Your task to perform on an android device: stop showing notifications on the lock screen Image 0: 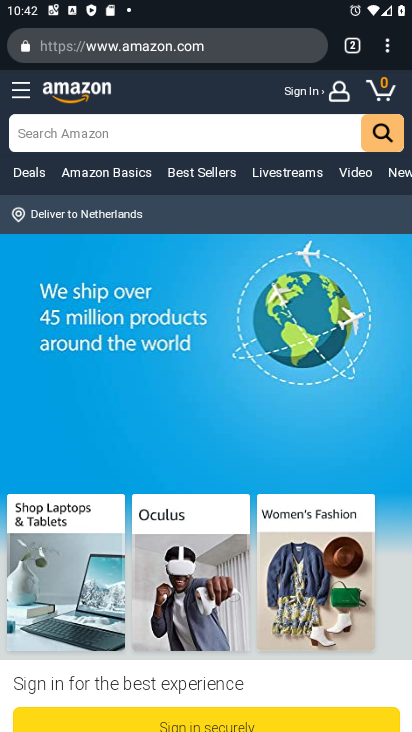
Step 0: press home button
Your task to perform on an android device: stop showing notifications on the lock screen Image 1: 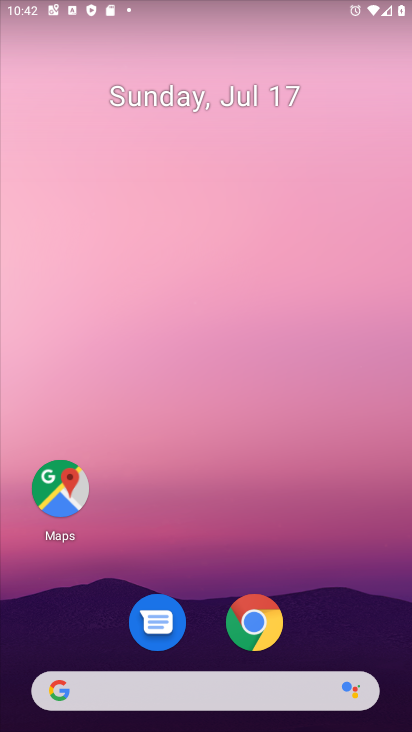
Step 1: drag from (169, 723) to (383, 13)
Your task to perform on an android device: stop showing notifications on the lock screen Image 2: 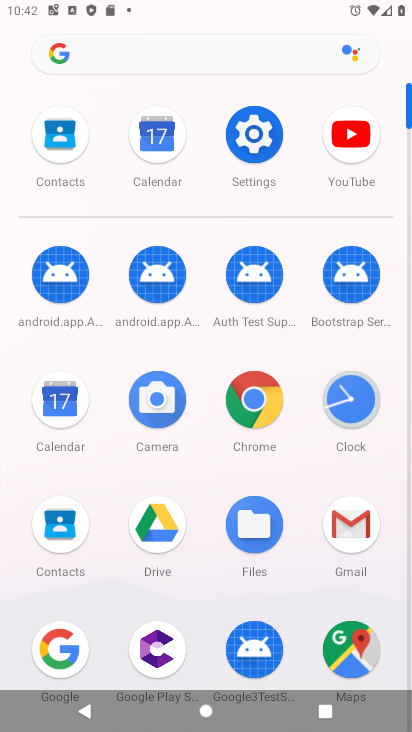
Step 2: click (250, 136)
Your task to perform on an android device: stop showing notifications on the lock screen Image 3: 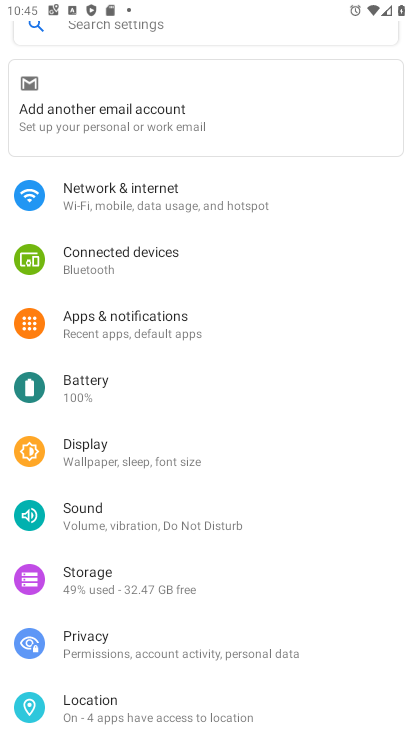
Step 3: click (169, 323)
Your task to perform on an android device: stop showing notifications on the lock screen Image 4: 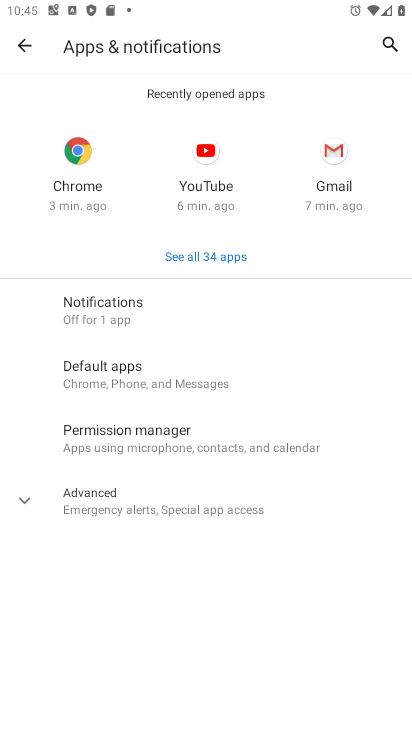
Step 4: click (179, 316)
Your task to perform on an android device: stop showing notifications on the lock screen Image 5: 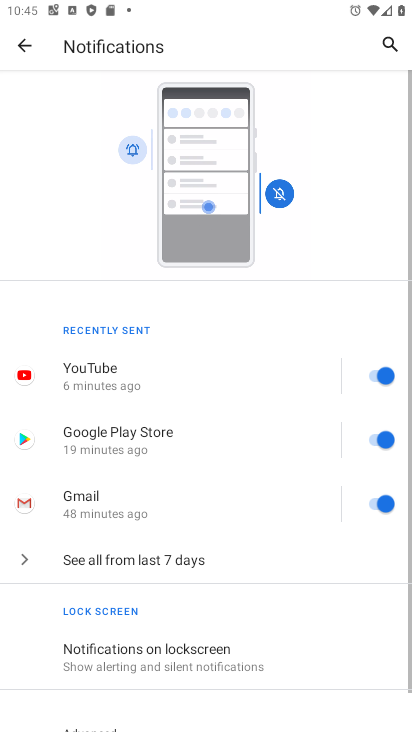
Step 5: drag from (227, 691) to (224, 239)
Your task to perform on an android device: stop showing notifications on the lock screen Image 6: 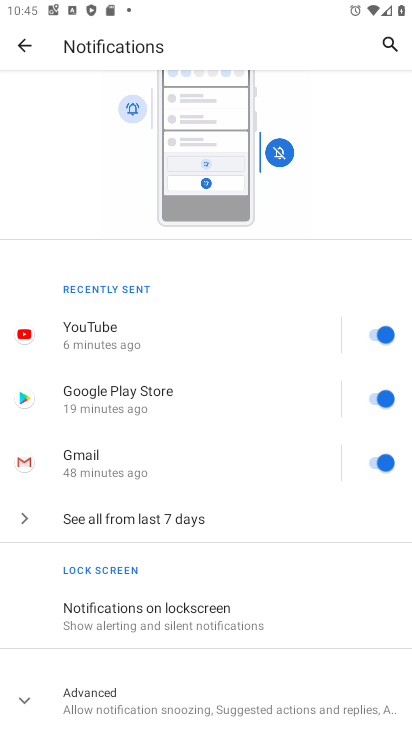
Step 6: click (231, 707)
Your task to perform on an android device: stop showing notifications on the lock screen Image 7: 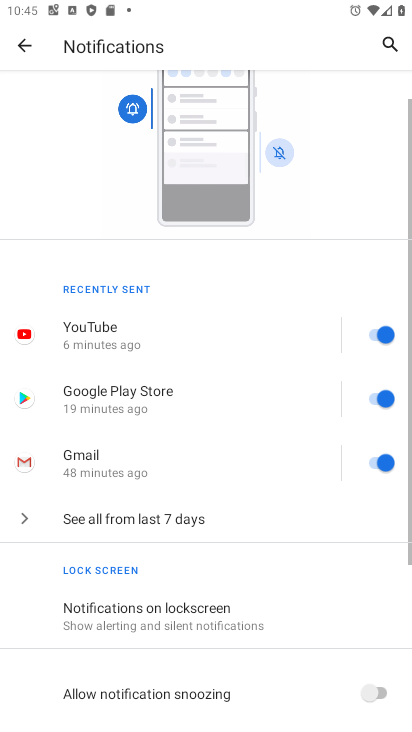
Step 7: drag from (227, 663) to (168, 93)
Your task to perform on an android device: stop showing notifications on the lock screen Image 8: 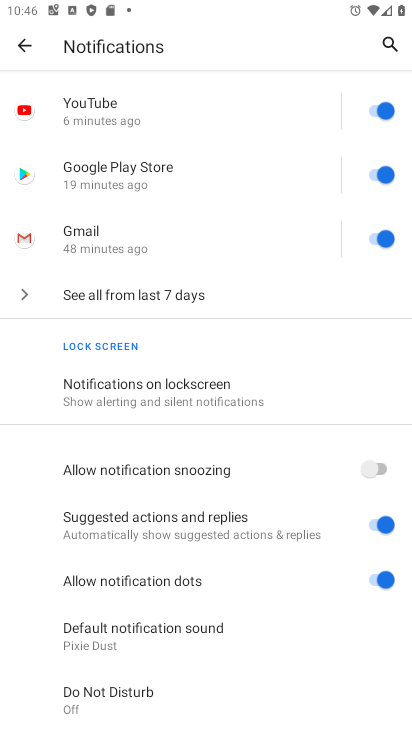
Step 8: click (242, 380)
Your task to perform on an android device: stop showing notifications on the lock screen Image 9: 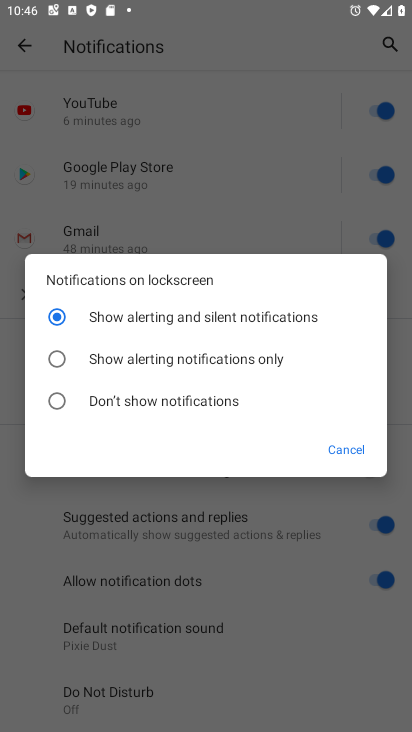
Step 9: click (139, 402)
Your task to perform on an android device: stop showing notifications on the lock screen Image 10: 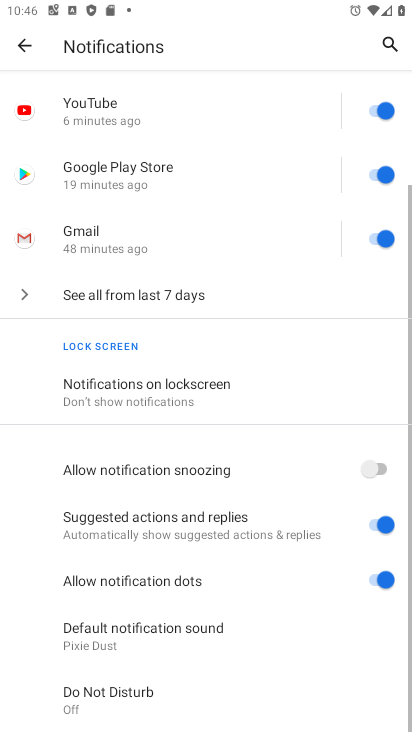
Step 10: task complete